Your task to perform on an android device: Open Maps and search for coffee Image 0: 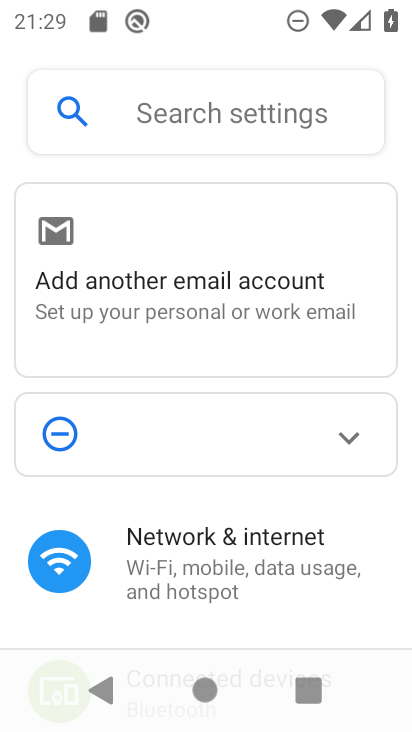
Step 0: press home button
Your task to perform on an android device: Open Maps and search for coffee Image 1: 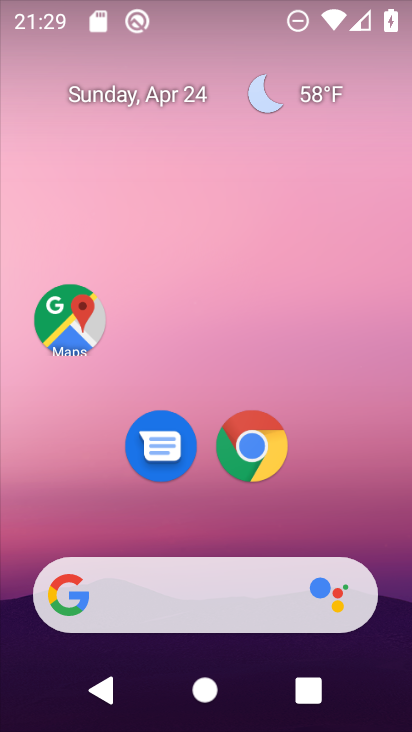
Step 1: drag from (212, 587) to (339, 65)
Your task to perform on an android device: Open Maps and search for coffee Image 2: 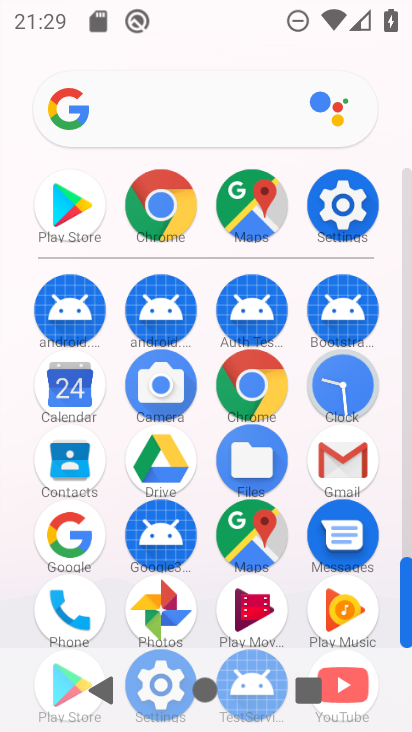
Step 2: click (249, 551)
Your task to perform on an android device: Open Maps and search for coffee Image 3: 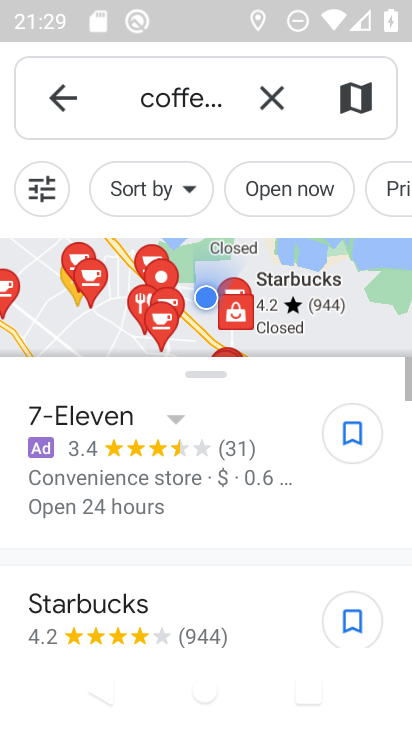
Step 3: task complete